Your task to perform on an android device: Go to calendar. Show me events next week Image 0: 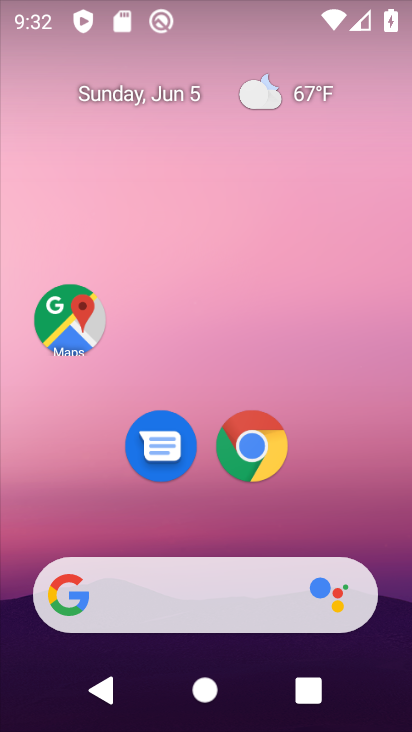
Step 0: drag from (200, 542) to (201, 199)
Your task to perform on an android device: Go to calendar. Show me events next week Image 1: 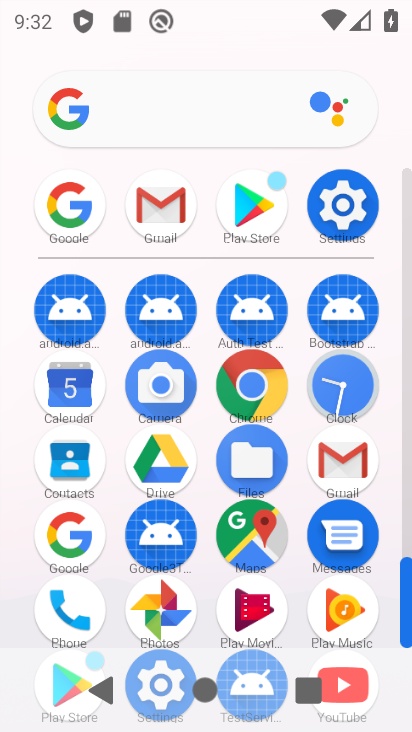
Step 1: click (76, 378)
Your task to perform on an android device: Go to calendar. Show me events next week Image 2: 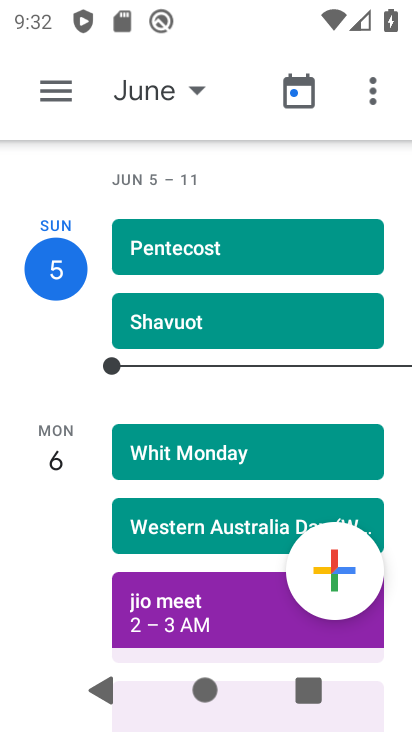
Step 2: click (192, 86)
Your task to perform on an android device: Go to calendar. Show me events next week Image 3: 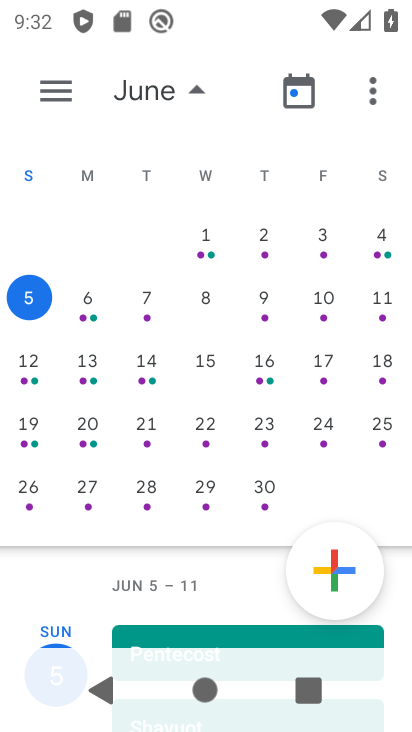
Step 3: click (27, 378)
Your task to perform on an android device: Go to calendar. Show me events next week Image 4: 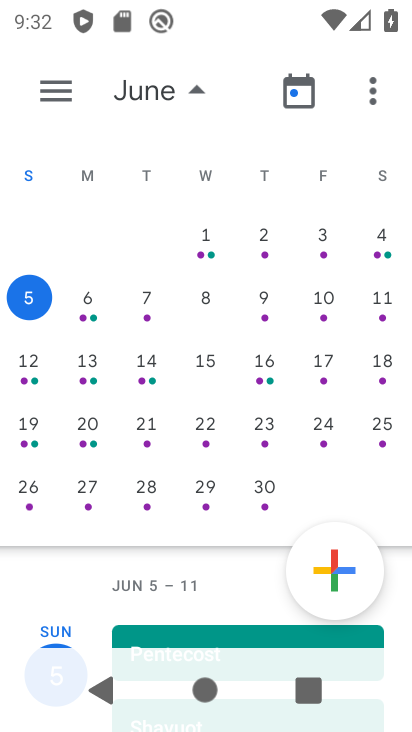
Step 4: click (27, 367)
Your task to perform on an android device: Go to calendar. Show me events next week Image 5: 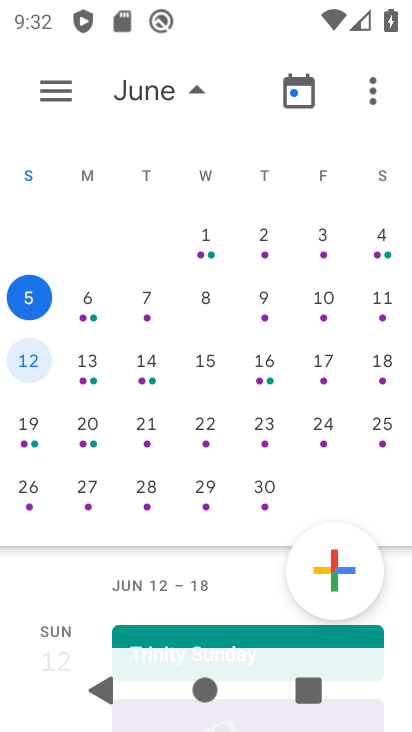
Step 5: click (32, 366)
Your task to perform on an android device: Go to calendar. Show me events next week Image 6: 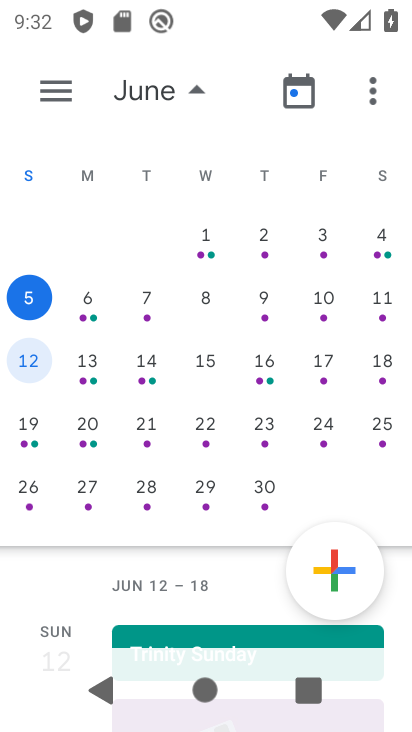
Step 6: click (92, 367)
Your task to perform on an android device: Go to calendar. Show me events next week Image 7: 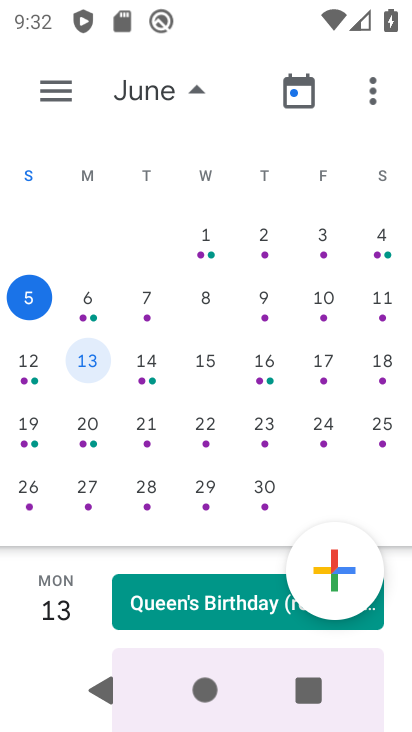
Step 7: click (31, 369)
Your task to perform on an android device: Go to calendar. Show me events next week Image 8: 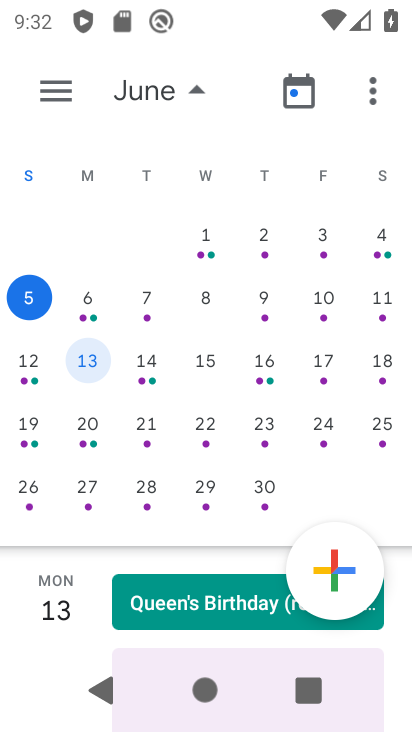
Step 8: click (39, 364)
Your task to perform on an android device: Go to calendar. Show me events next week Image 9: 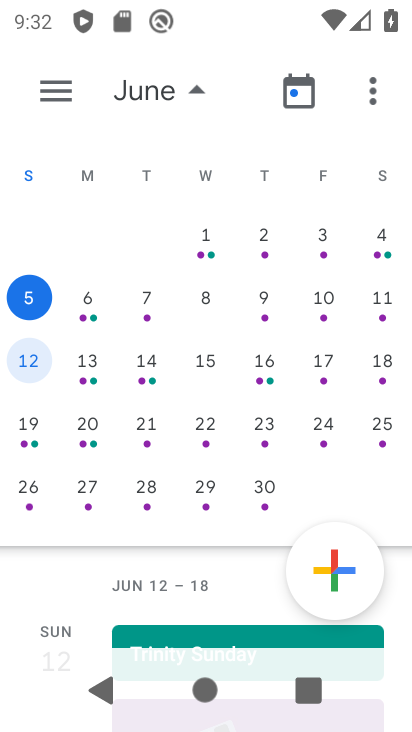
Step 9: task complete